Your task to perform on an android device: turn on improve location accuracy Image 0: 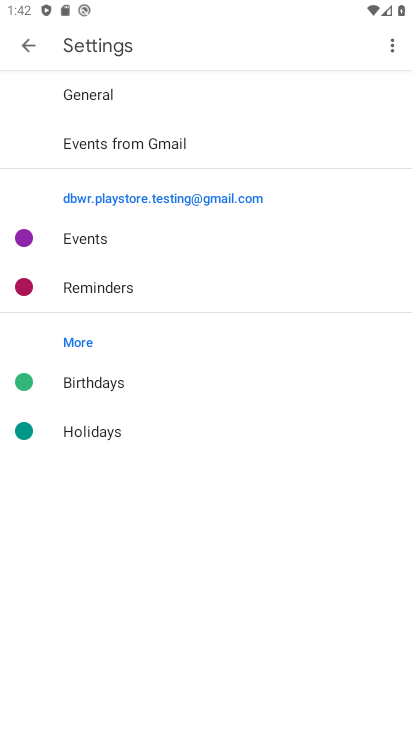
Step 0: press home button
Your task to perform on an android device: turn on improve location accuracy Image 1: 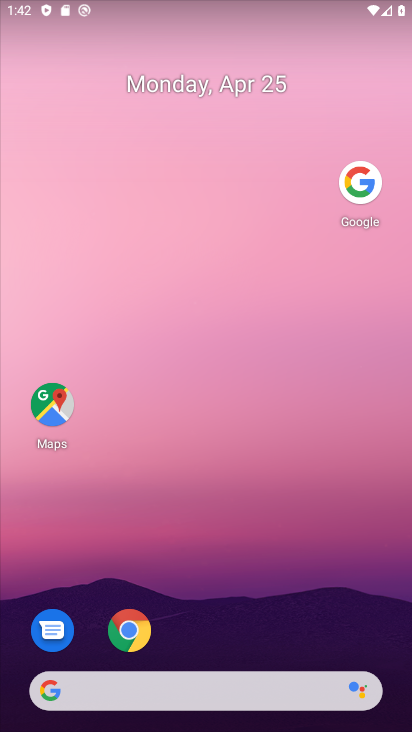
Step 1: drag from (216, 659) to (119, 29)
Your task to perform on an android device: turn on improve location accuracy Image 2: 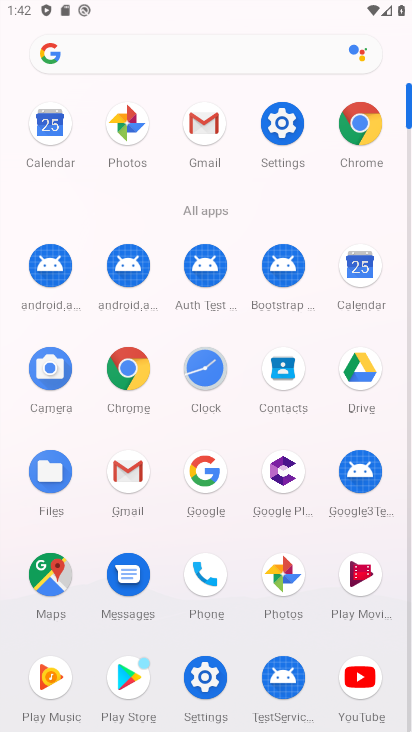
Step 2: click (279, 129)
Your task to perform on an android device: turn on improve location accuracy Image 3: 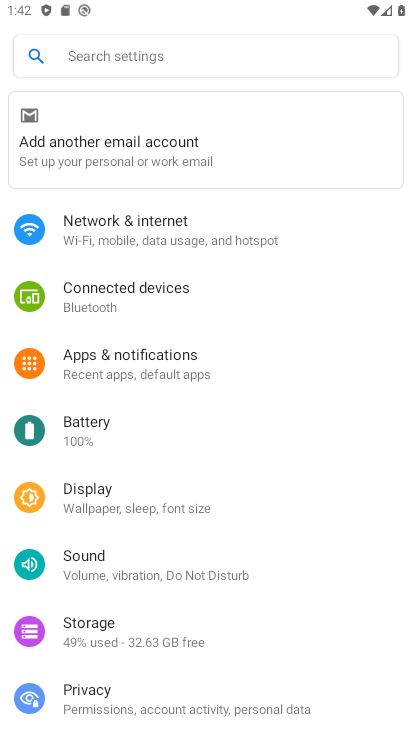
Step 3: drag from (197, 638) to (163, 216)
Your task to perform on an android device: turn on improve location accuracy Image 4: 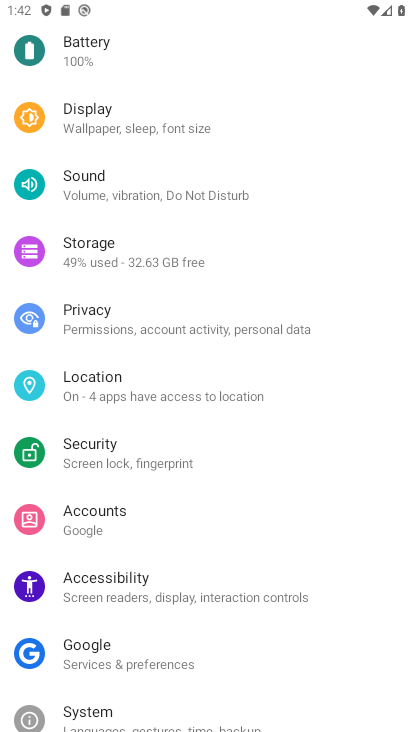
Step 4: click (89, 382)
Your task to perform on an android device: turn on improve location accuracy Image 5: 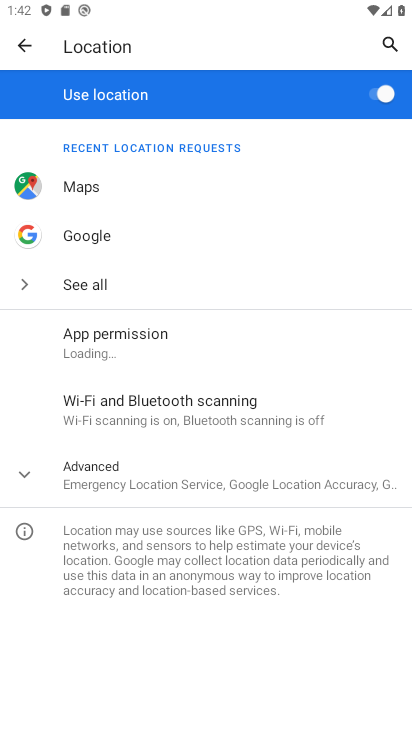
Step 5: click (119, 474)
Your task to perform on an android device: turn on improve location accuracy Image 6: 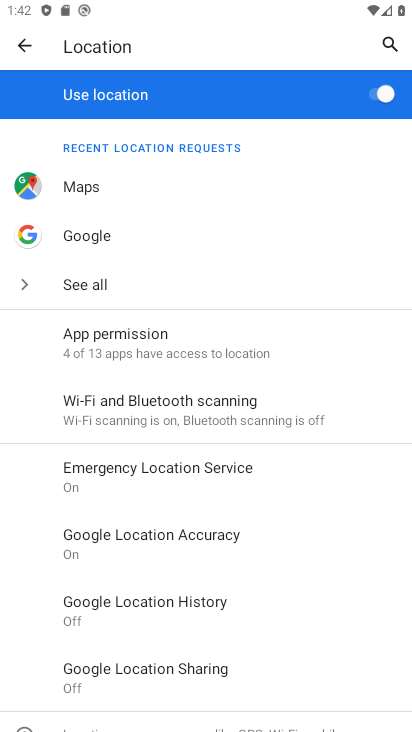
Step 6: click (162, 548)
Your task to perform on an android device: turn on improve location accuracy Image 7: 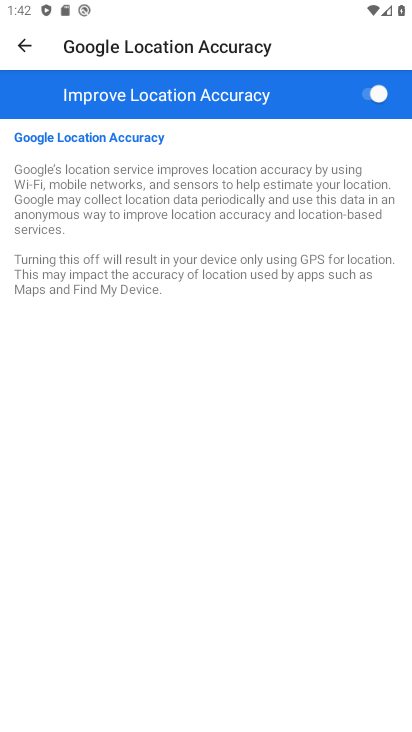
Step 7: task complete